Your task to perform on an android device: Open settings Image 0: 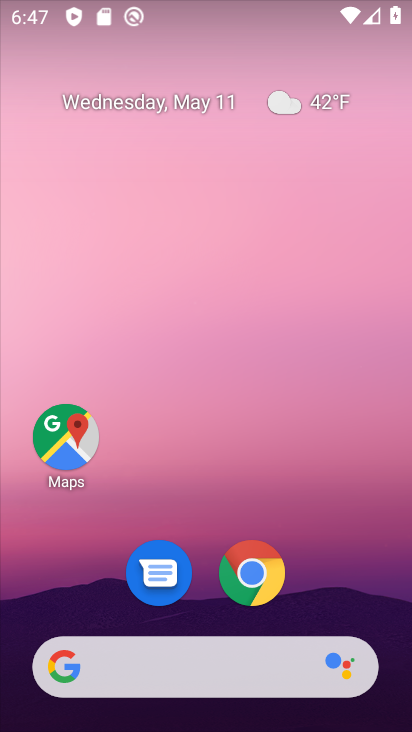
Step 0: drag from (324, 593) to (255, 221)
Your task to perform on an android device: Open settings Image 1: 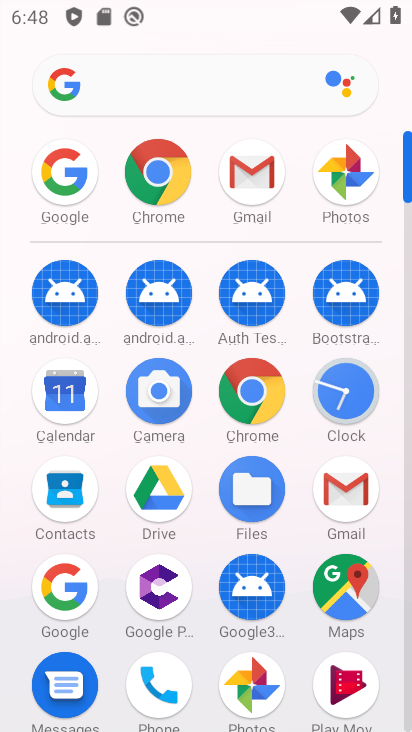
Step 1: drag from (206, 664) to (215, 419)
Your task to perform on an android device: Open settings Image 2: 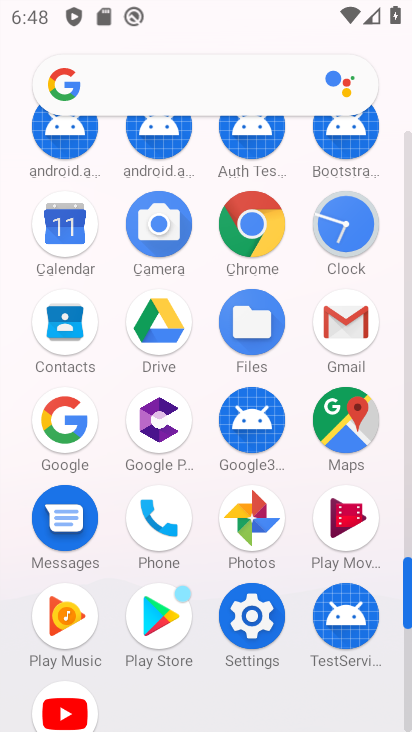
Step 2: click (252, 635)
Your task to perform on an android device: Open settings Image 3: 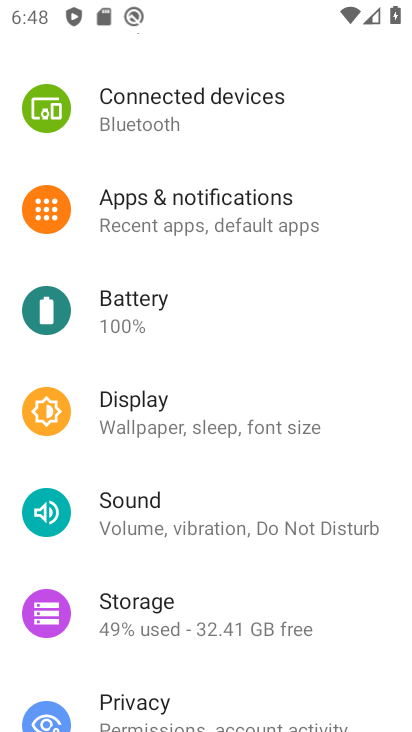
Step 3: task complete